Your task to perform on an android device: Clear all items from cart on newegg. Image 0: 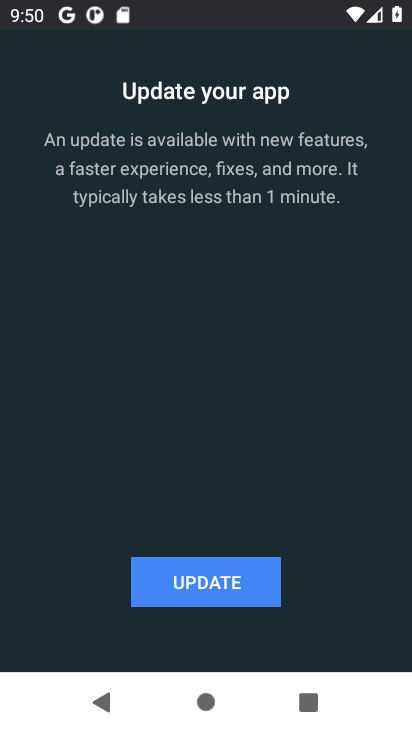
Step 0: press home button
Your task to perform on an android device: Clear all items from cart on newegg. Image 1: 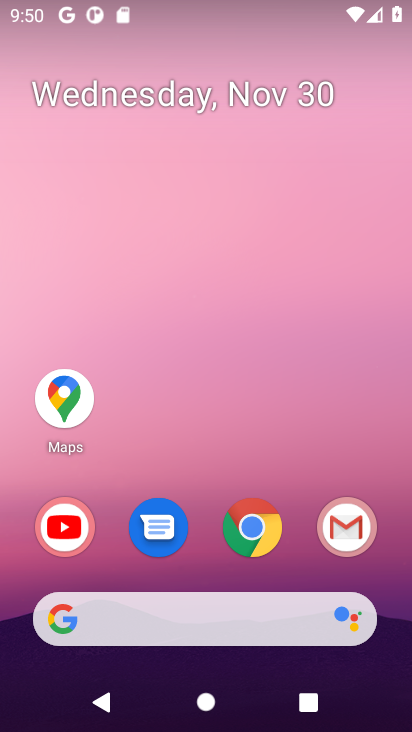
Step 1: click (265, 515)
Your task to perform on an android device: Clear all items from cart on newegg. Image 2: 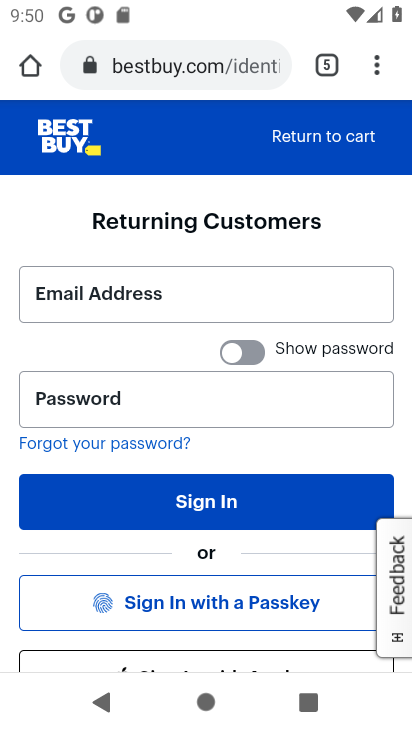
Step 2: click (245, 60)
Your task to perform on an android device: Clear all items from cart on newegg. Image 3: 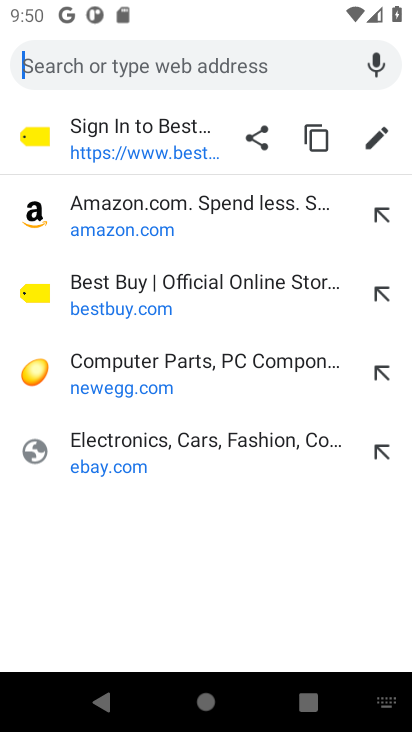
Step 3: click (186, 367)
Your task to perform on an android device: Clear all items from cart on newegg. Image 4: 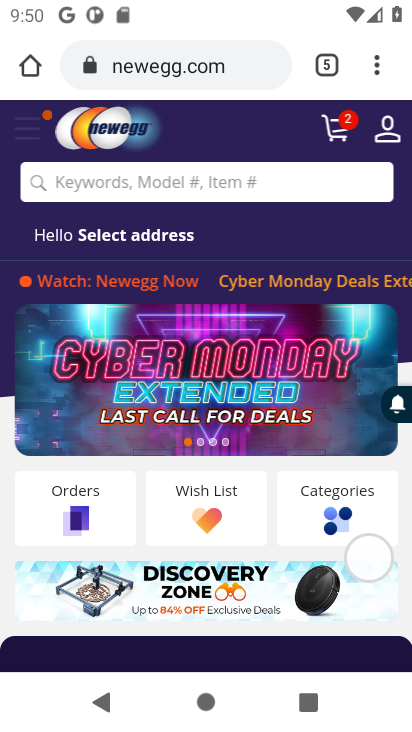
Step 4: click (338, 133)
Your task to perform on an android device: Clear all items from cart on newegg. Image 5: 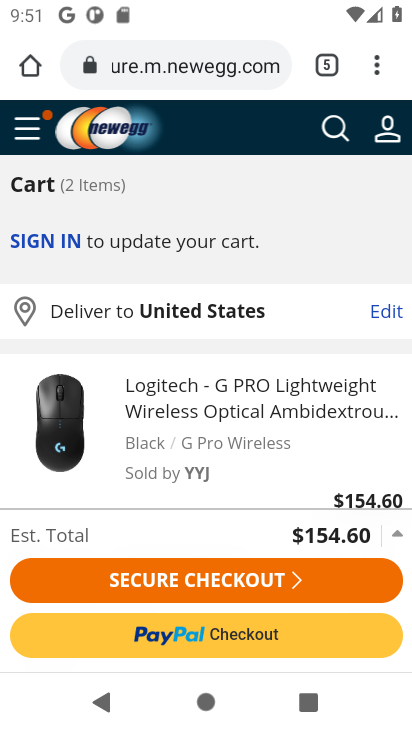
Step 5: drag from (298, 462) to (288, 131)
Your task to perform on an android device: Clear all items from cart on newegg. Image 6: 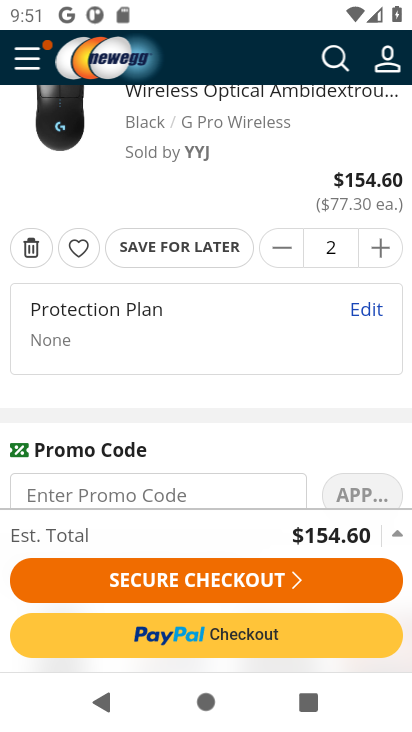
Step 6: click (29, 246)
Your task to perform on an android device: Clear all items from cart on newegg. Image 7: 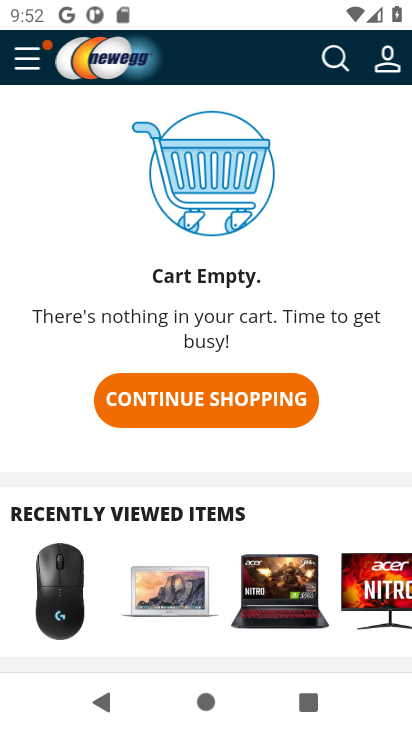
Step 7: task complete